Your task to perform on an android device: toggle javascript in the chrome app Image 0: 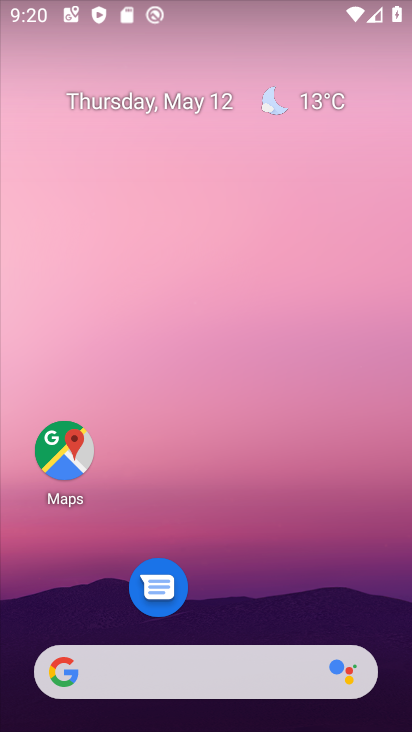
Step 0: drag from (198, 620) to (110, 21)
Your task to perform on an android device: toggle javascript in the chrome app Image 1: 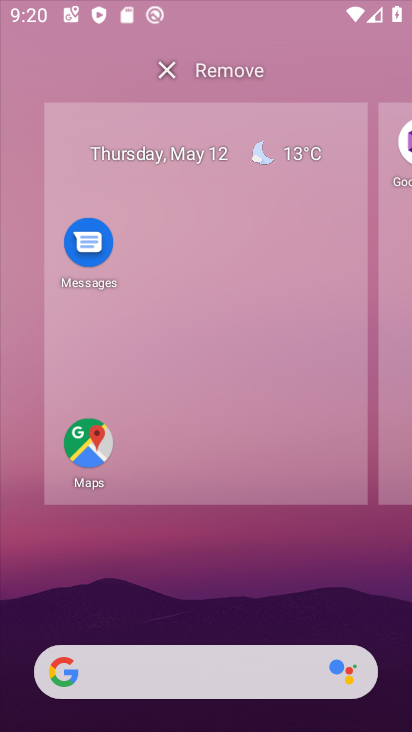
Step 1: drag from (179, 617) to (131, 0)
Your task to perform on an android device: toggle javascript in the chrome app Image 2: 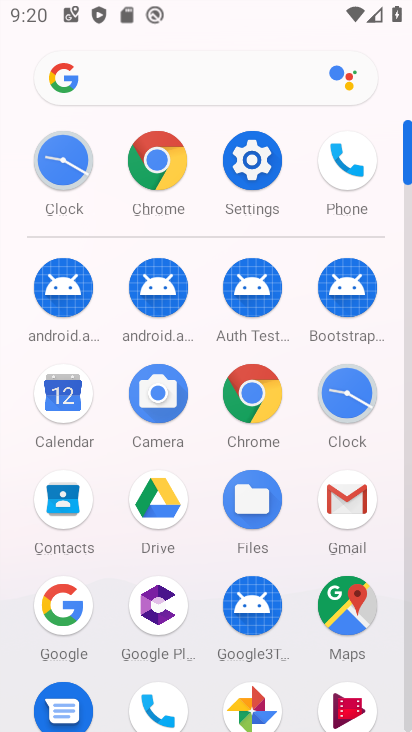
Step 2: click (170, 167)
Your task to perform on an android device: toggle javascript in the chrome app Image 3: 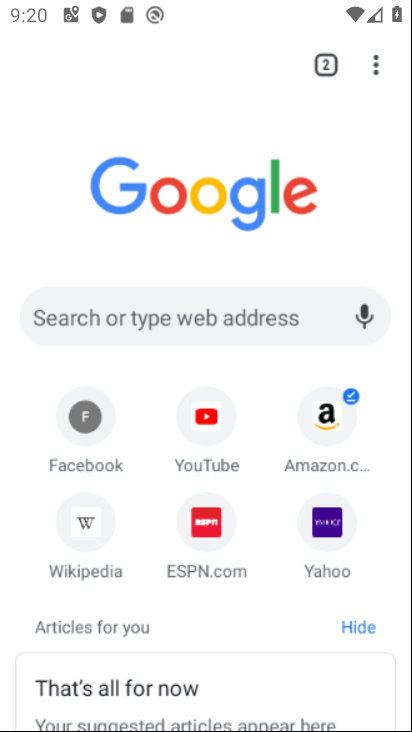
Step 3: click (374, 56)
Your task to perform on an android device: toggle javascript in the chrome app Image 4: 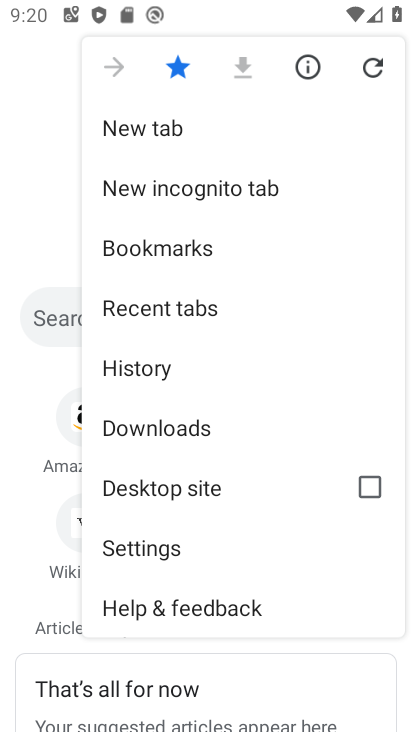
Step 4: click (178, 540)
Your task to perform on an android device: toggle javascript in the chrome app Image 5: 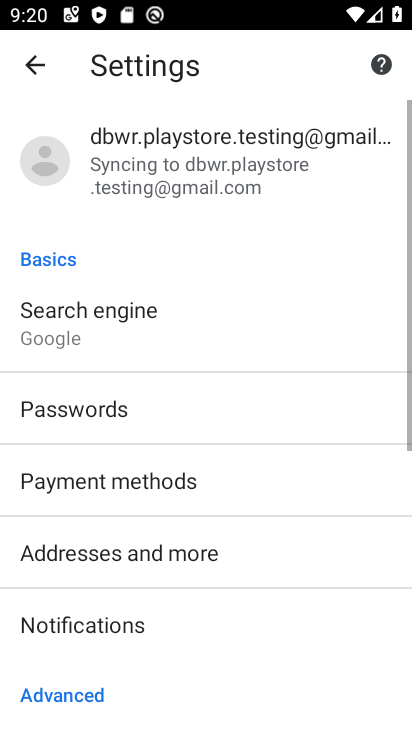
Step 5: drag from (178, 540) to (124, 63)
Your task to perform on an android device: toggle javascript in the chrome app Image 6: 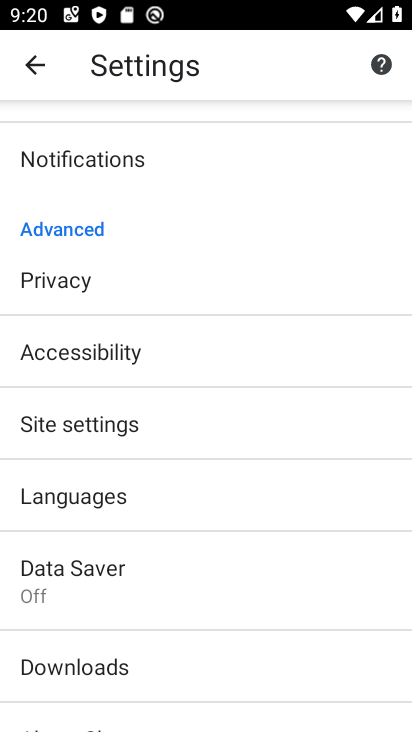
Step 6: click (39, 433)
Your task to perform on an android device: toggle javascript in the chrome app Image 7: 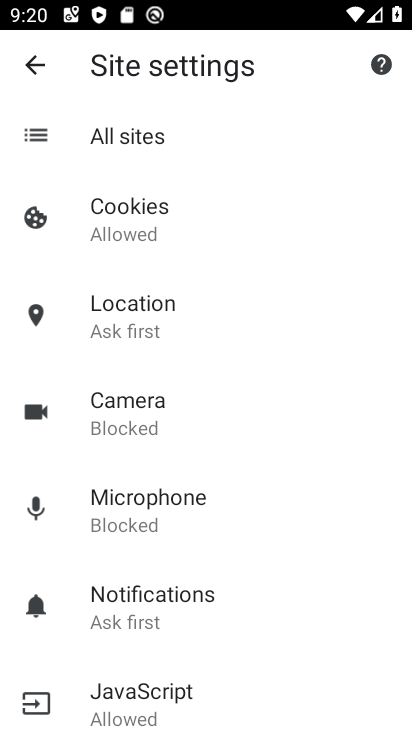
Step 7: click (153, 681)
Your task to perform on an android device: toggle javascript in the chrome app Image 8: 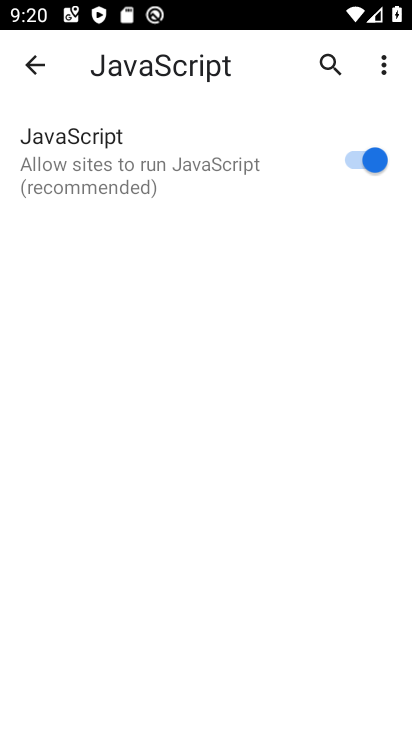
Step 8: click (366, 147)
Your task to perform on an android device: toggle javascript in the chrome app Image 9: 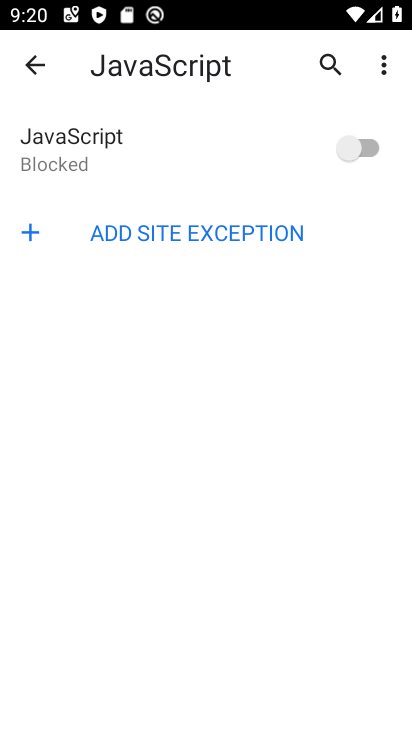
Step 9: task complete